Your task to perform on an android device: Turn off the flashlight Image 0: 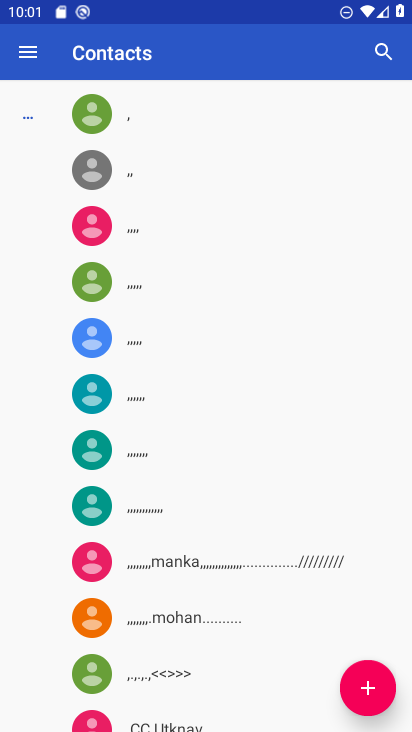
Step 0: press home button
Your task to perform on an android device: Turn off the flashlight Image 1: 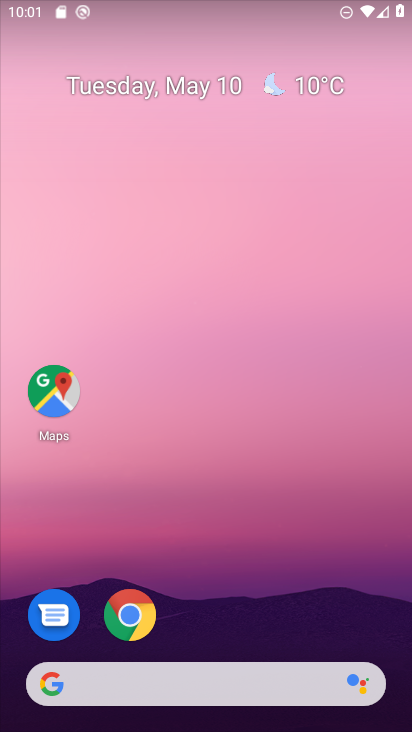
Step 1: drag from (209, 10) to (187, 696)
Your task to perform on an android device: Turn off the flashlight Image 2: 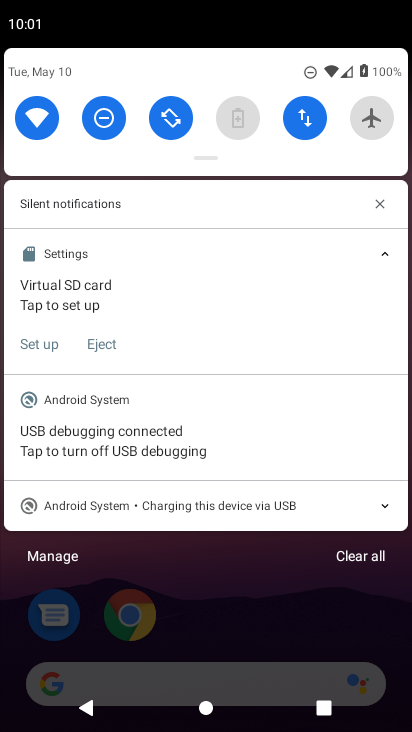
Step 2: drag from (206, 155) to (232, 605)
Your task to perform on an android device: Turn off the flashlight Image 3: 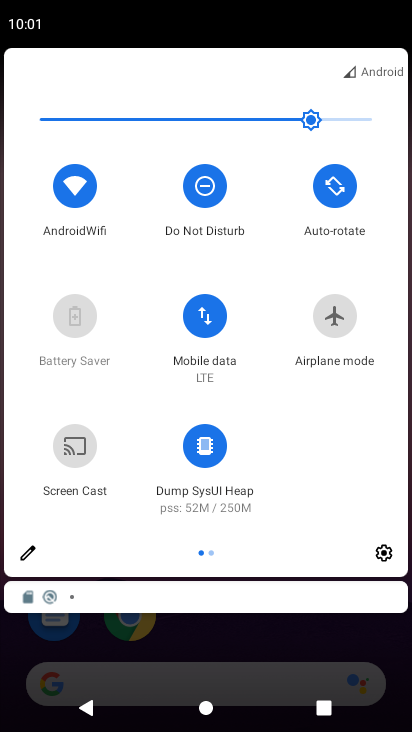
Step 3: click (22, 546)
Your task to perform on an android device: Turn off the flashlight Image 4: 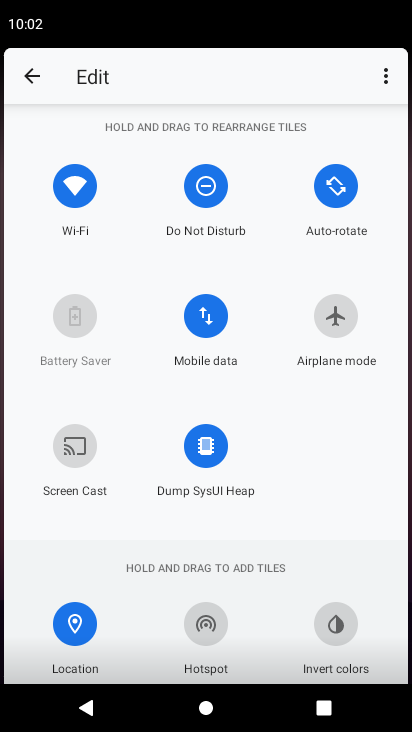
Step 4: task complete